Your task to perform on an android device: Open display settings Image 0: 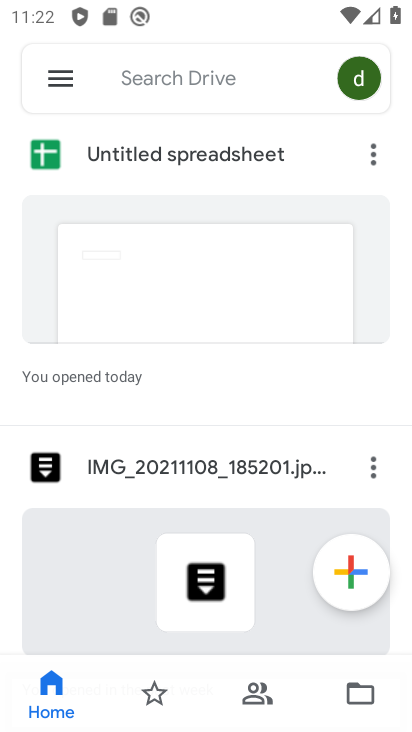
Step 0: press home button
Your task to perform on an android device: Open display settings Image 1: 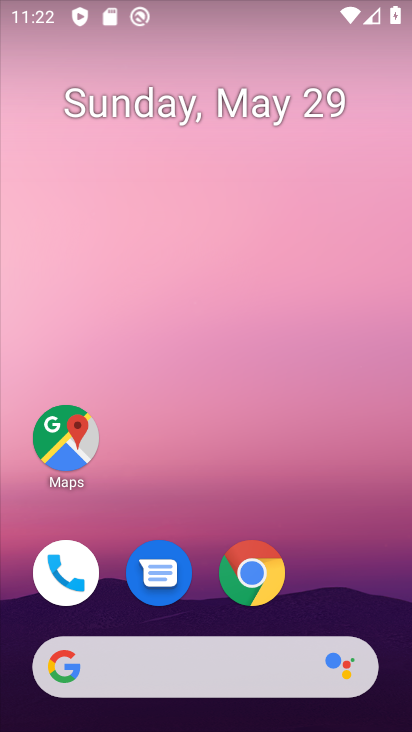
Step 1: drag from (375, 590) to (364, 156)
Your task to perform on an android device: Open display settings Image 2: 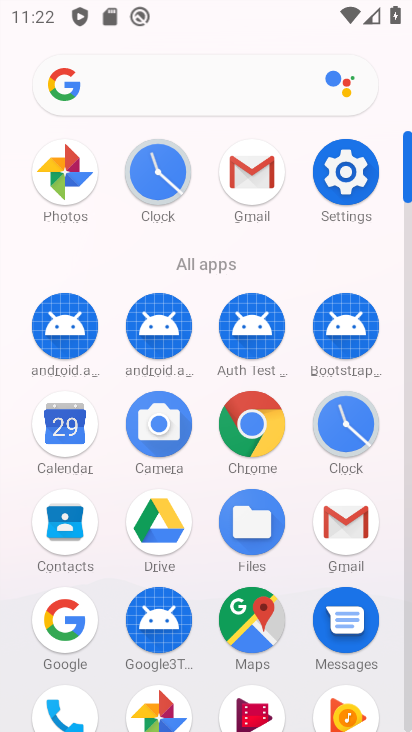
Step 2: click (358, 166)
Your task to perform on an android device: Open display settings Image 3: 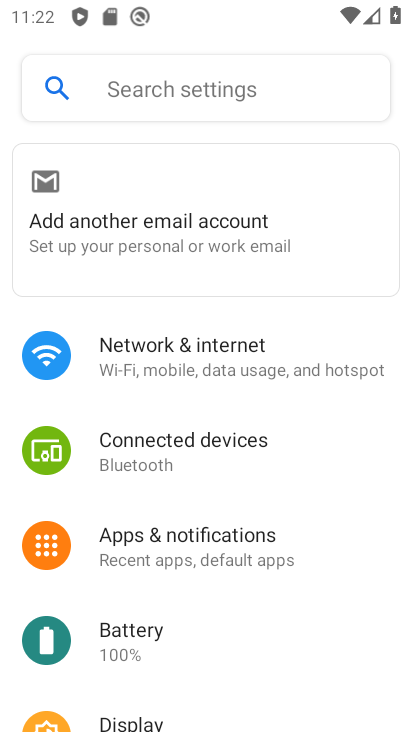
Step 3: click (199, 720)
Your task to perform on an android device: Open display settings Image 4: 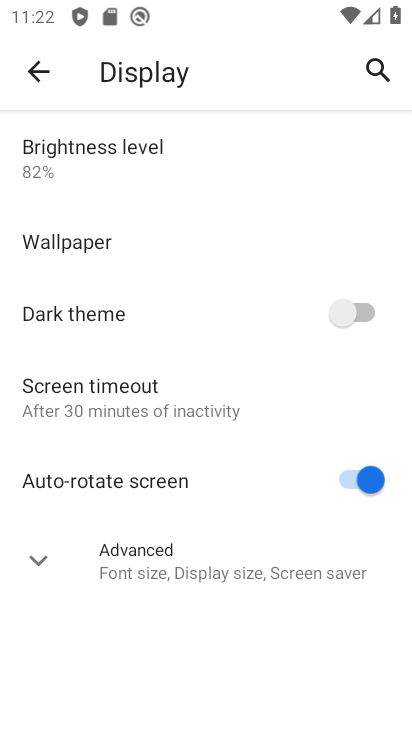
Step 4: task complete